Your task to perform on an android device: open app "Truecaller" (install if not already installed) Image 0: 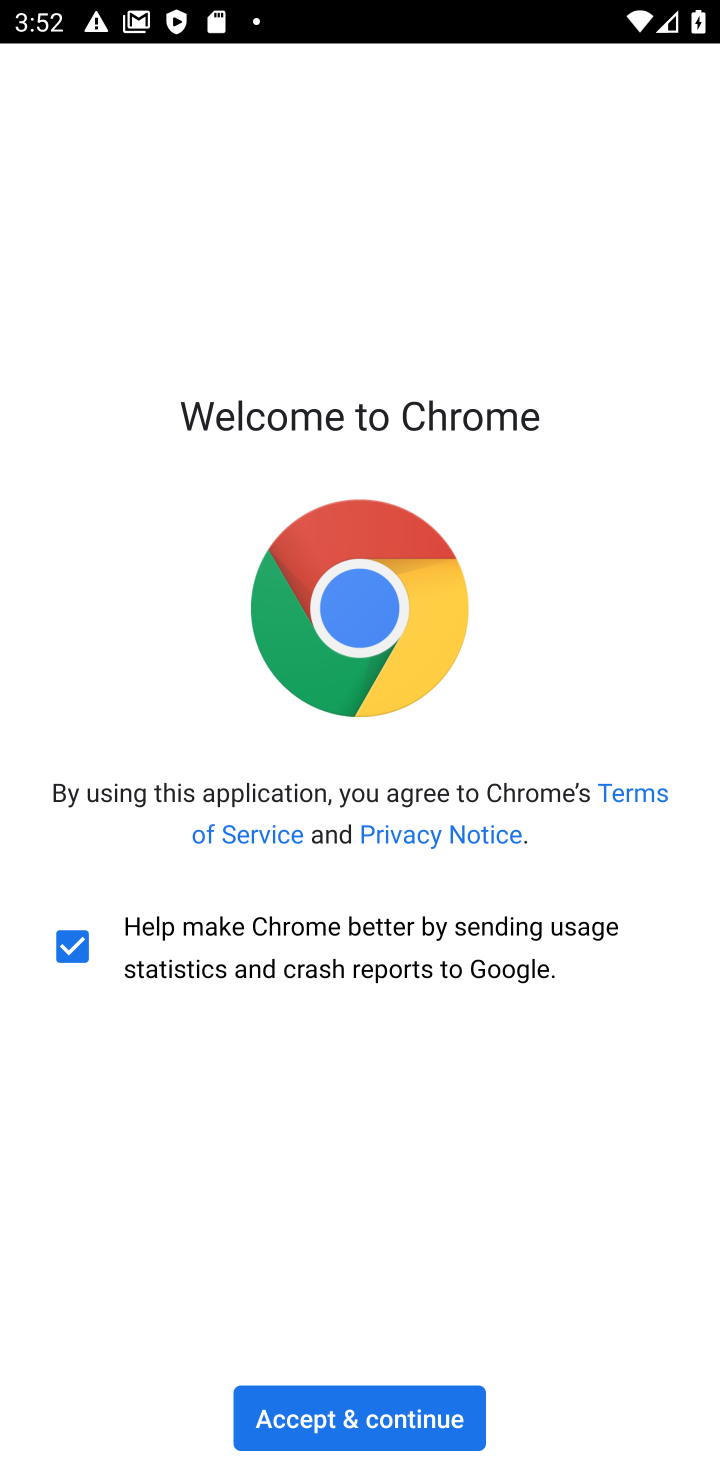
Step 0: press home button
Your task to perform on an android device: open app "Truecaller" (install if not already installed) Image 1: 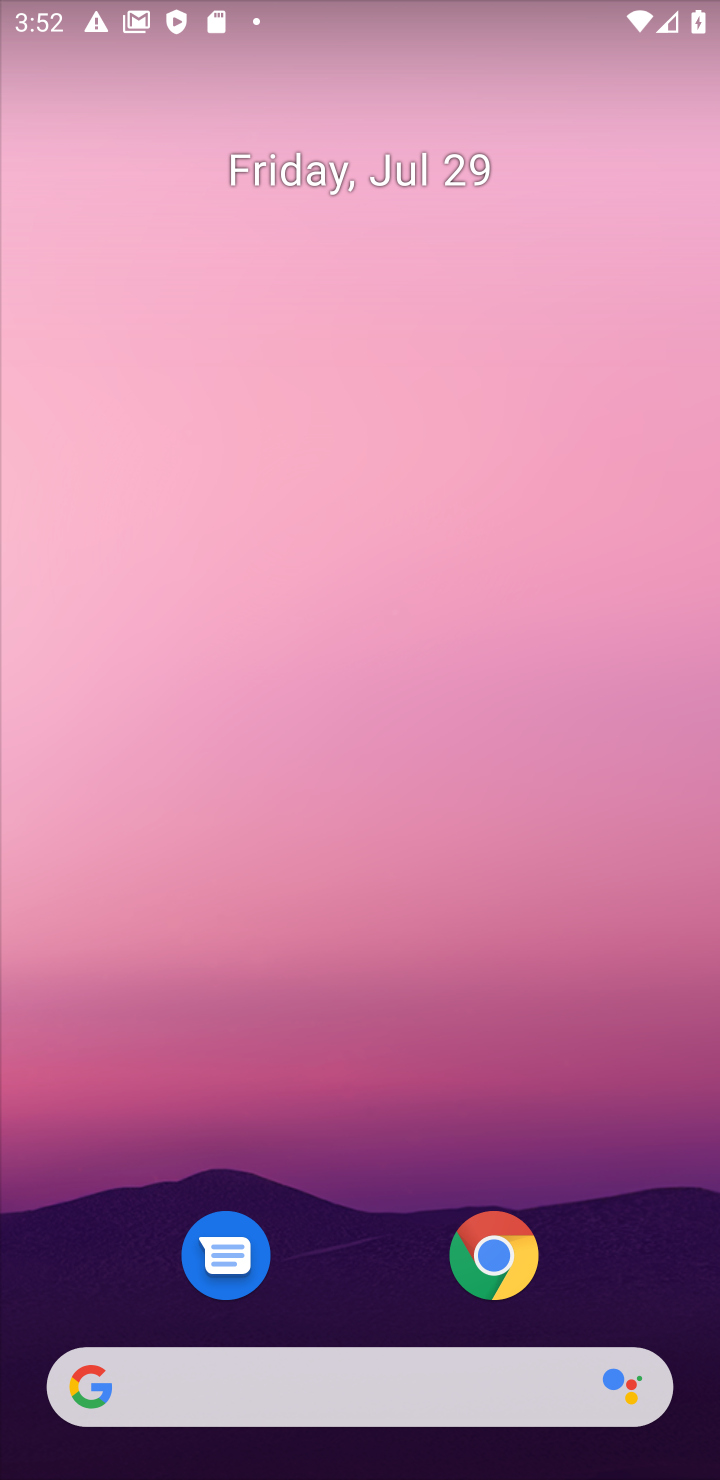
Step 1: drag from (299, 747) to (331, 342)
Your task to perform on an android device: open app "Truecaller" (install if not already installed) Image 2: 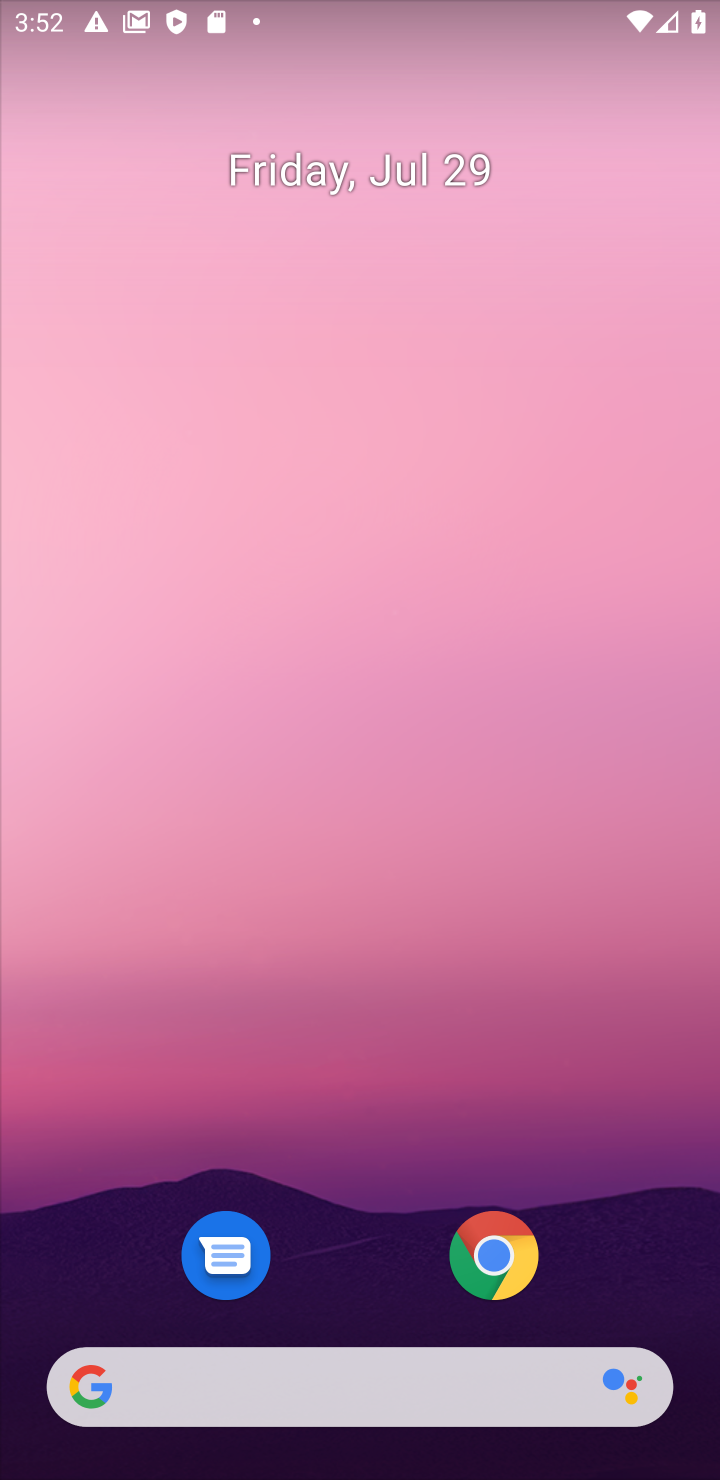
Step 2: drag from (421, 845) to (400, 282)
Your task to perform on an android device: open app "Truecaller" (install if not already installed) Image 3: 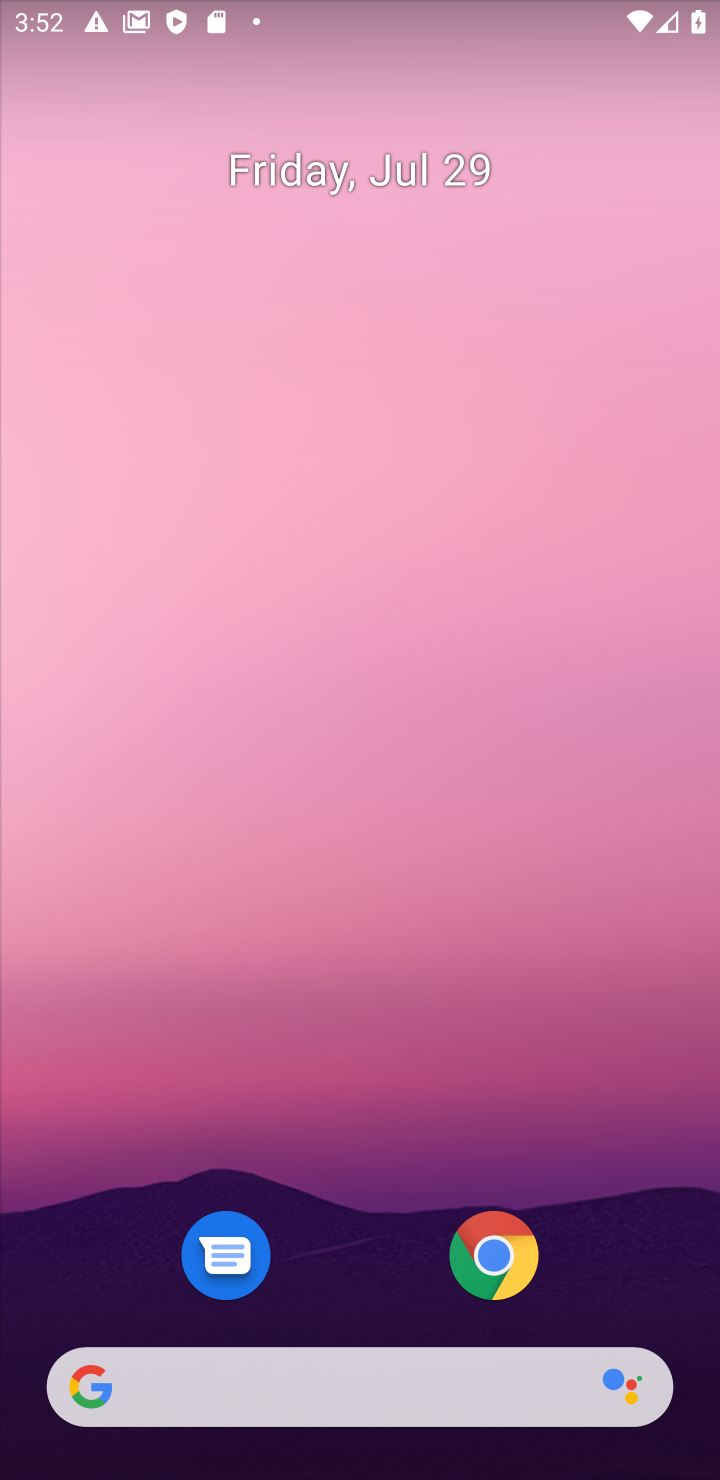
Step 3: drag from (352, 1102) to (374, 210)
Your task to perform on an android device: open app "Truecaller" (install if not already installed) Image 4: 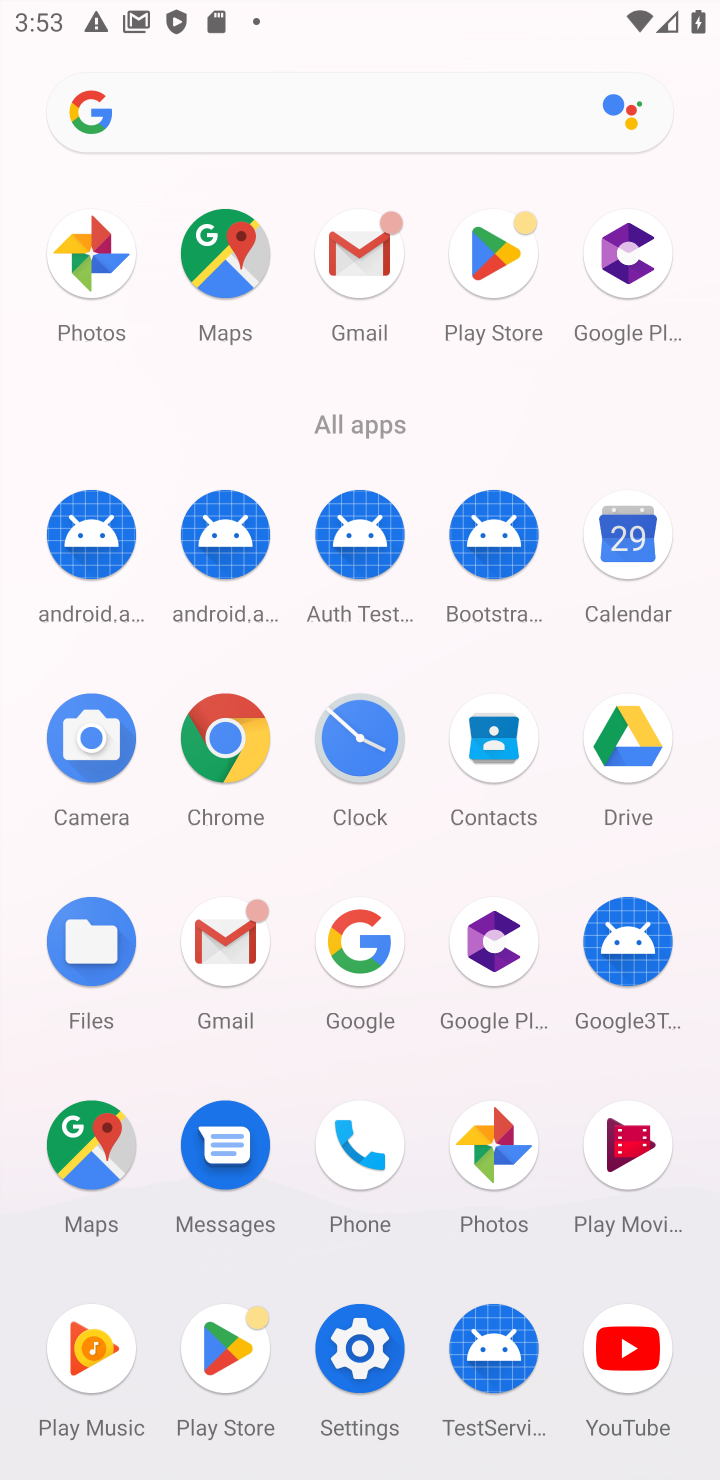
Step 4: click (225, 1362)
Your task to perform on an android device: open app "Truecaller" (install if not already installed) Image 5: 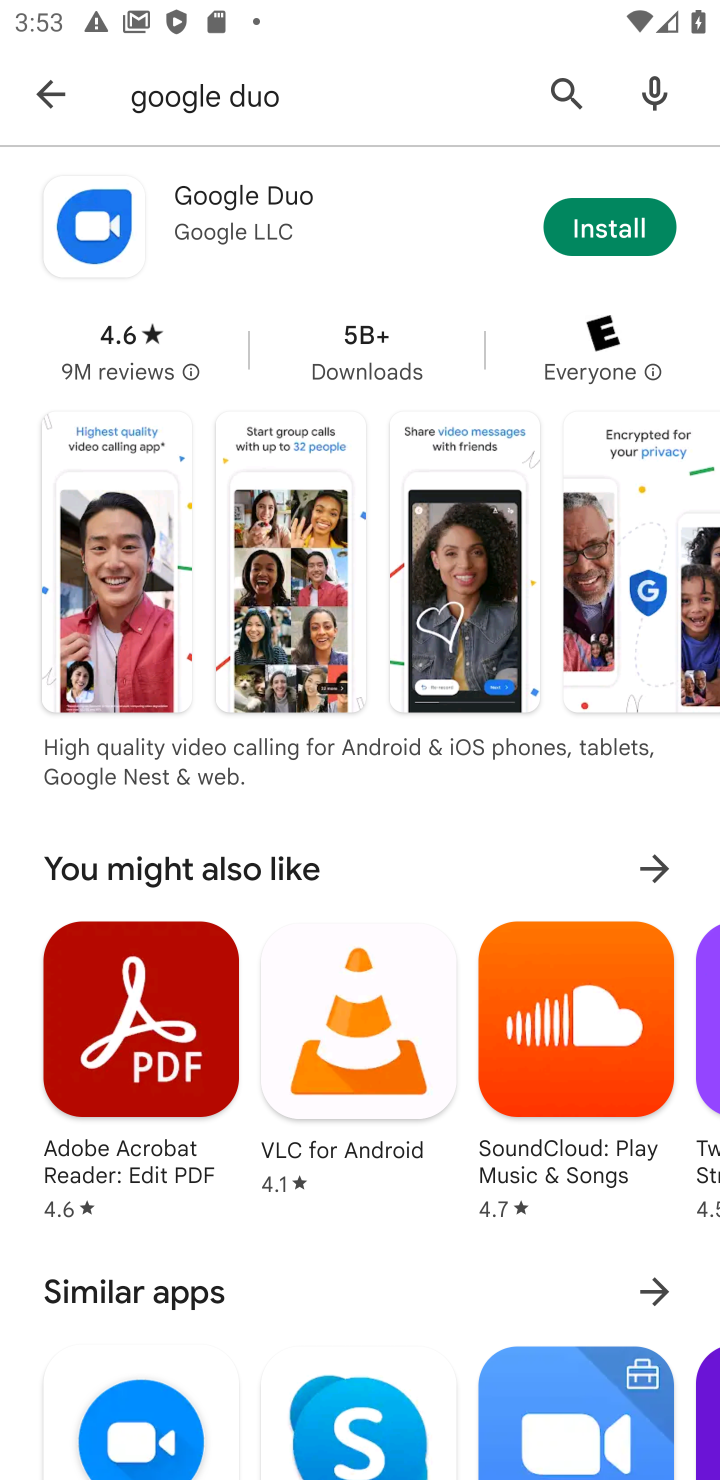
Step 5: click (553, 82)
Your task to perform on an android device: open app "Truecaller" (install if not already installed) Image 6: 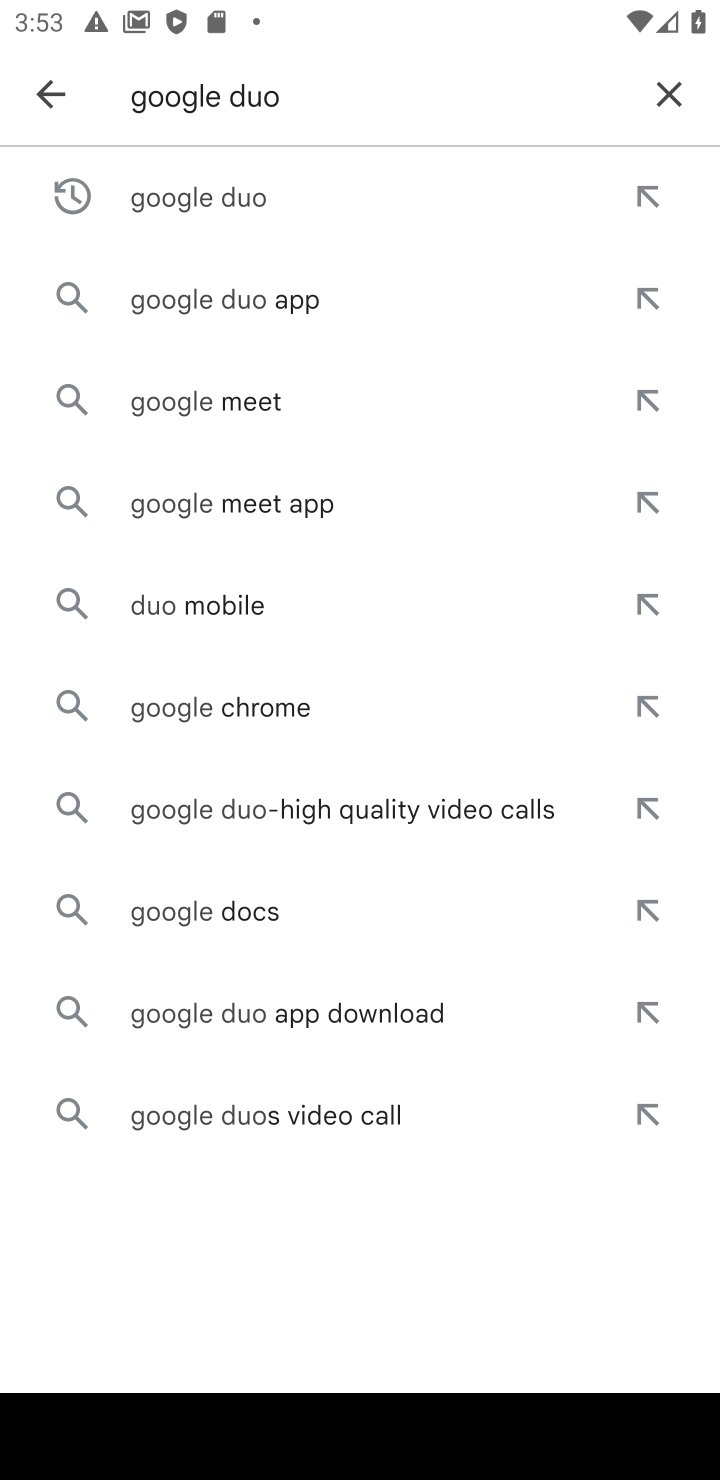
Step 6: click (674, 102)
Your task to perform on an android device: open app "Truecaller" (install if not already installed) Image 7: 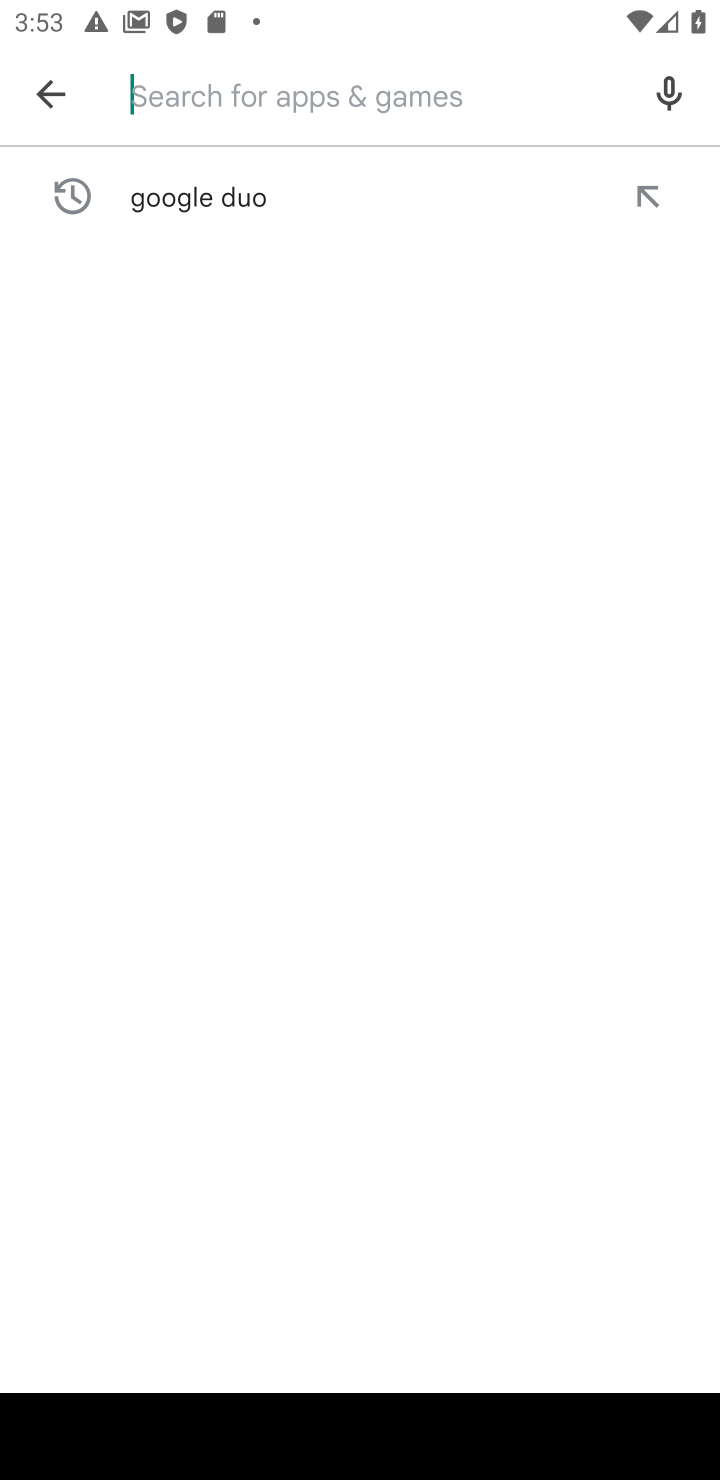
Step 7: type "Truecaller"
Your task to perform on an android device: open app "Truecaller" (install if not already installed) Image 8: 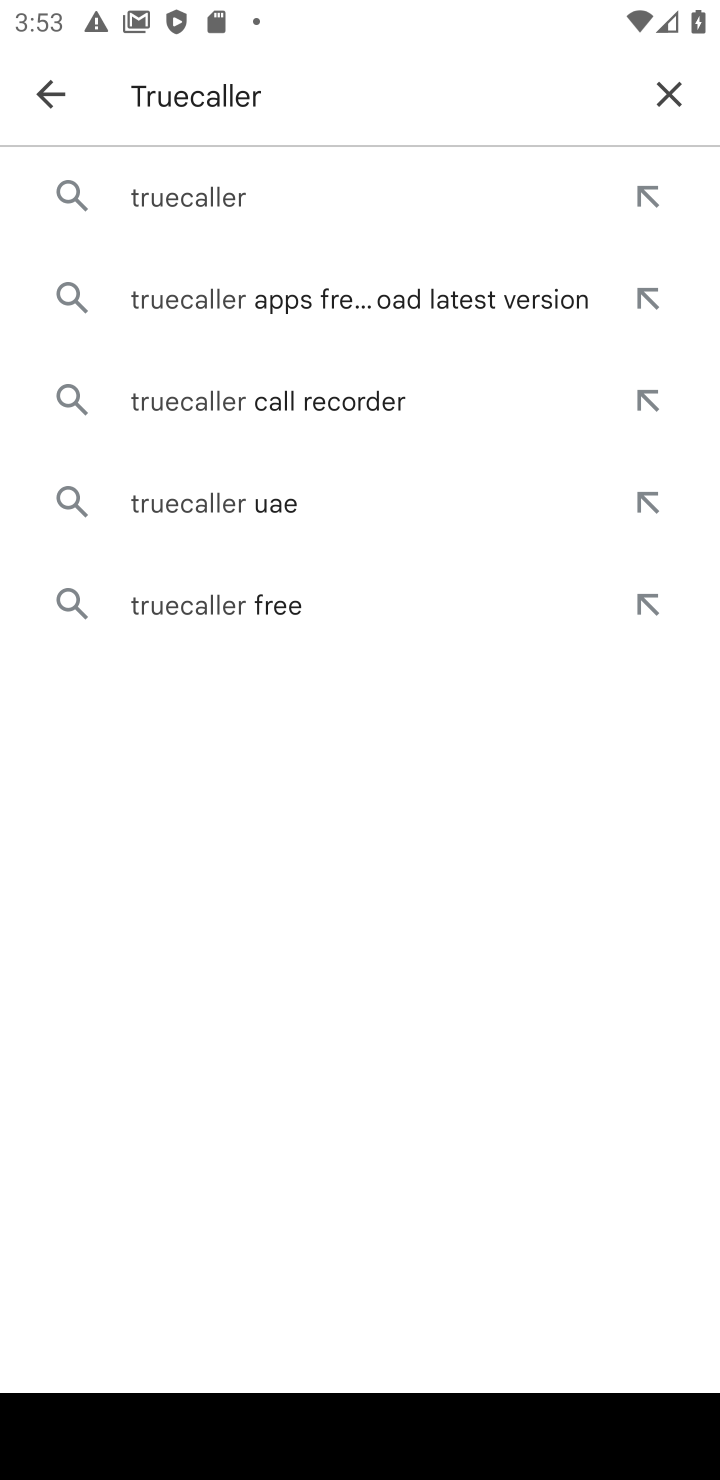
Step 8: click (205, 183)
Your task to perform on an android device: open app "Truecaller" (install if not already installed) Image 9: 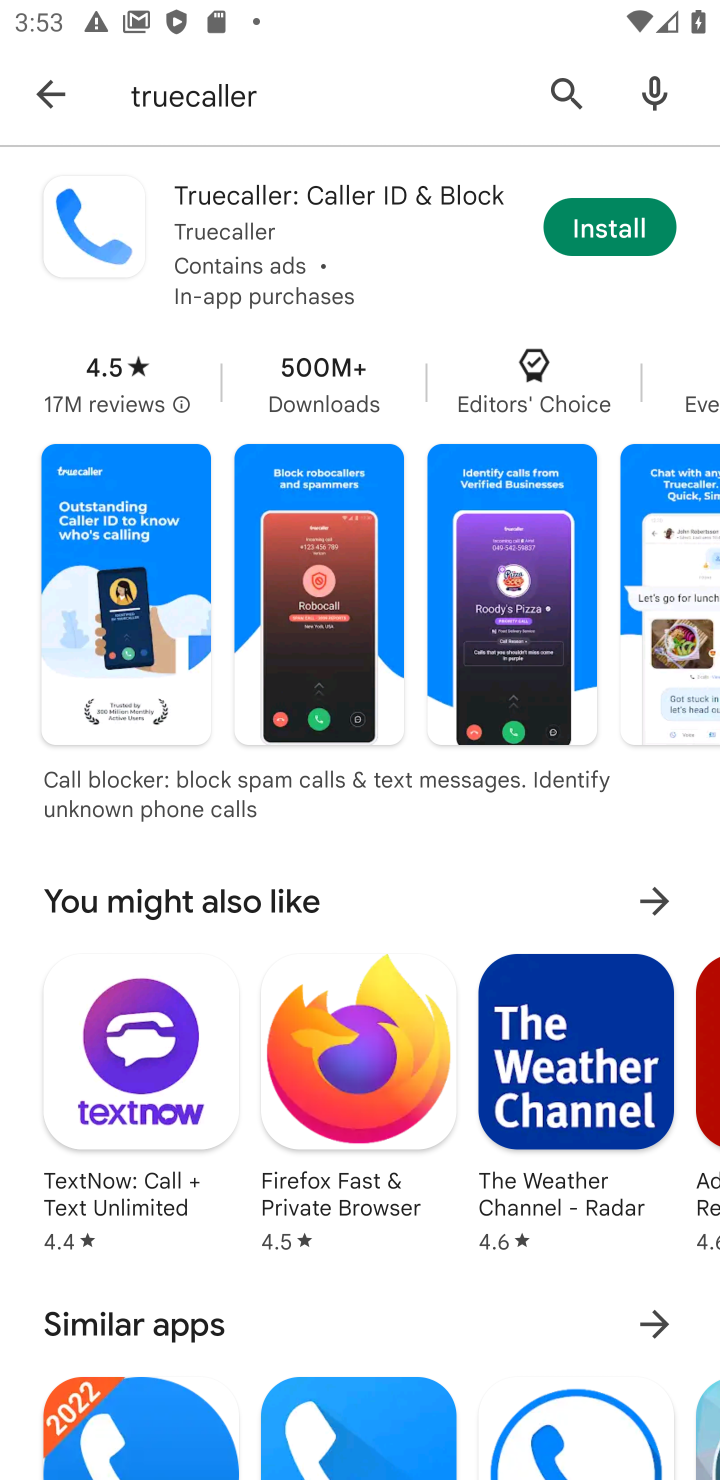
Step 9: click (615, 229)
Your task to perform on an android device: open app "Truecaller" (install if not already installed) Image 10: 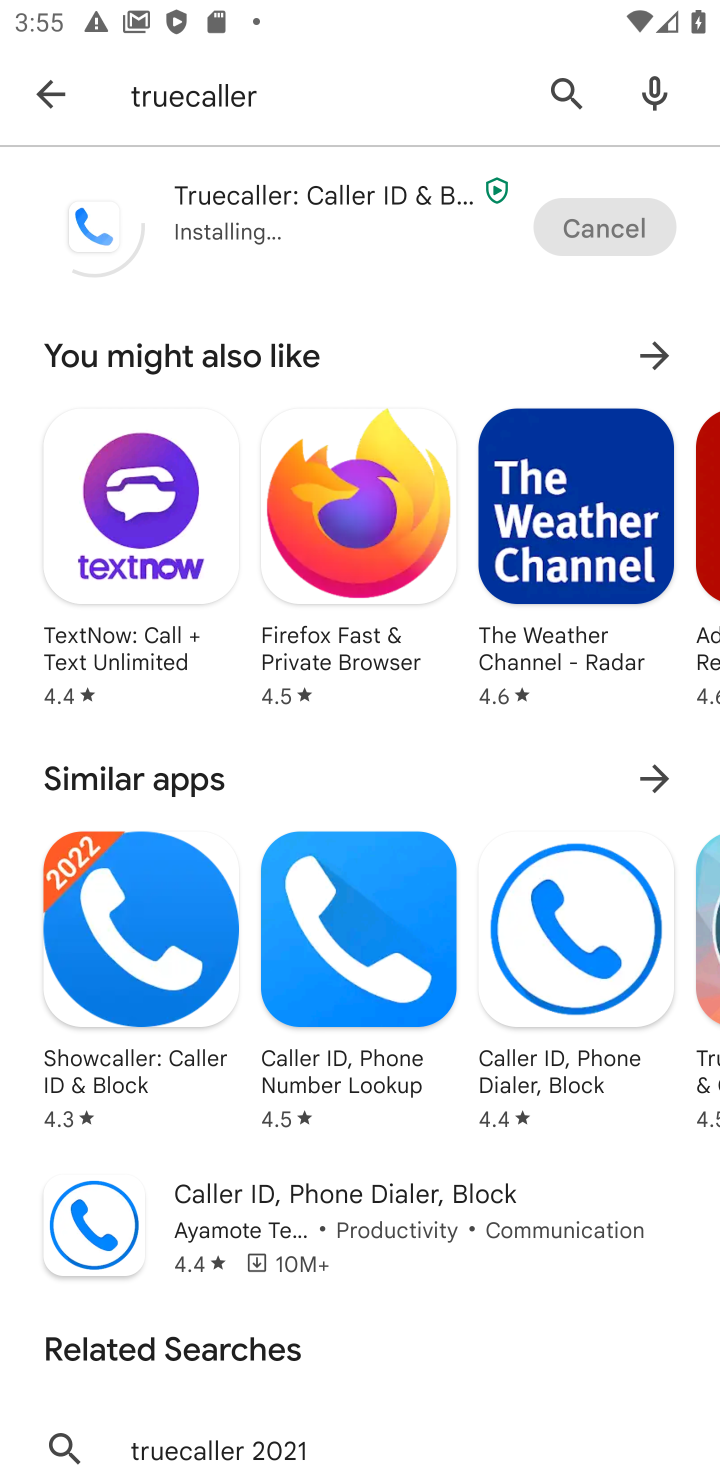
Step 10: task complete